Your task to perform on an android device: toggle location history Image 0: 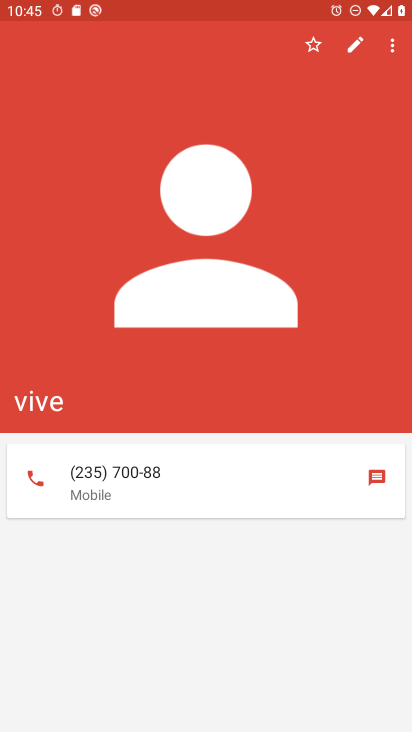
Step 0: press home button
Your task to perform on an android device: toggle location history Image 1: 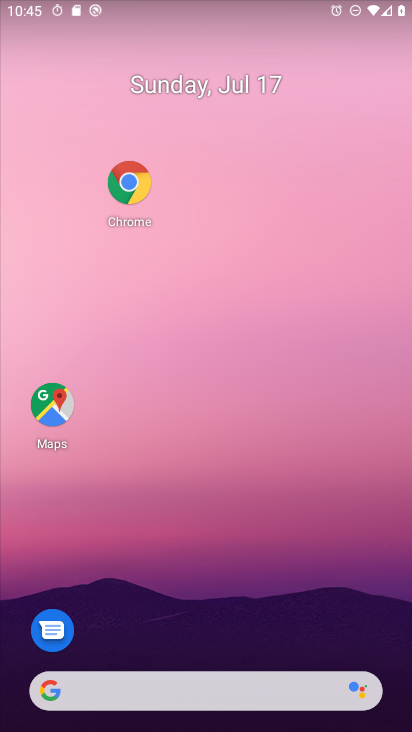
Step 1: drag from (258, 695) to (228, 558)
Your task to perform on an android device: toggle location history Image 2: 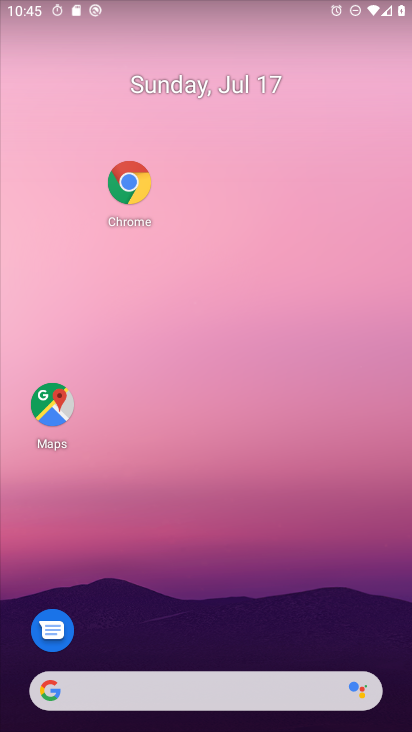
Step 2: drag from (212, 647) to (205, 228)
Your task to perform on an android device: toggle location history Image 3: 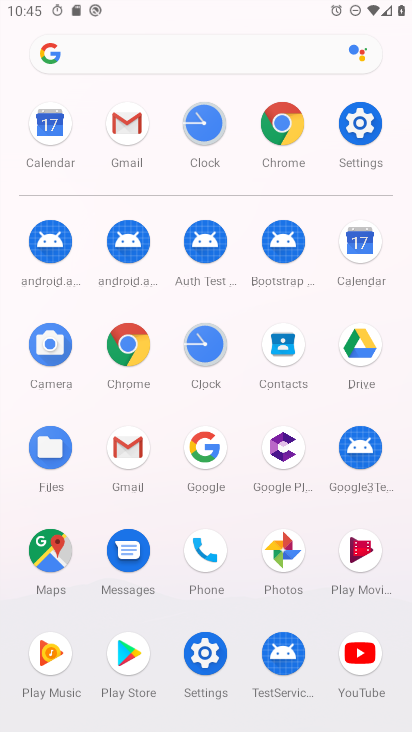
Step 3: click (355, 120)
Your task to perform on an android device: toggle location history Image 4: 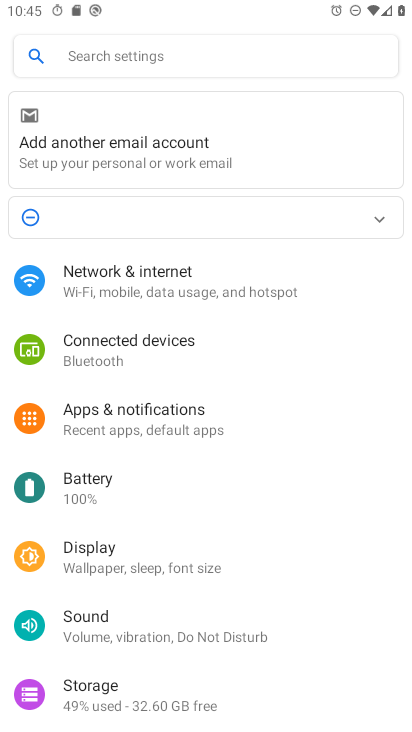
Step 4: drag from (139, 673) to (156, 503)
Your task to perform on an android device: toggle location history Image 5: 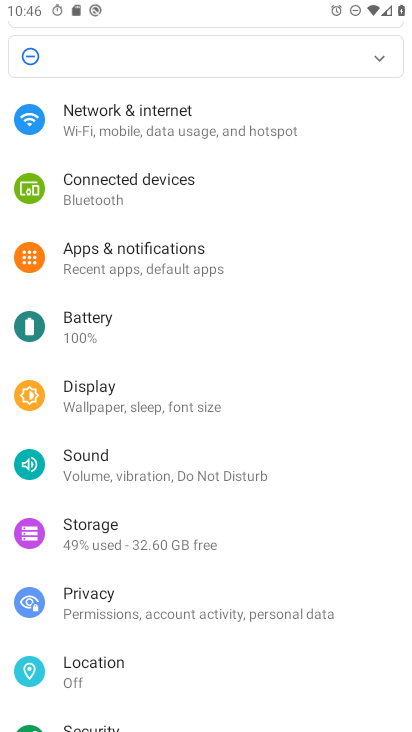
Step 5: drag from (146, 560) to (172, 367)
Your task to perform on an android device: toggle location history Image 6: 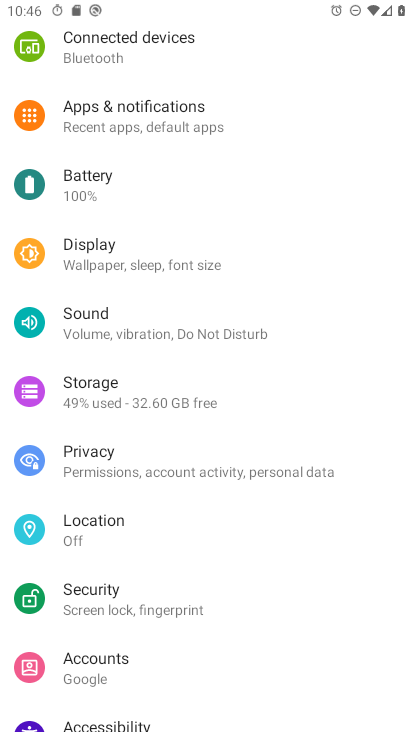
Step 6: click (137, 532)
Your task to perform on an android device: toggle location history Image 7: 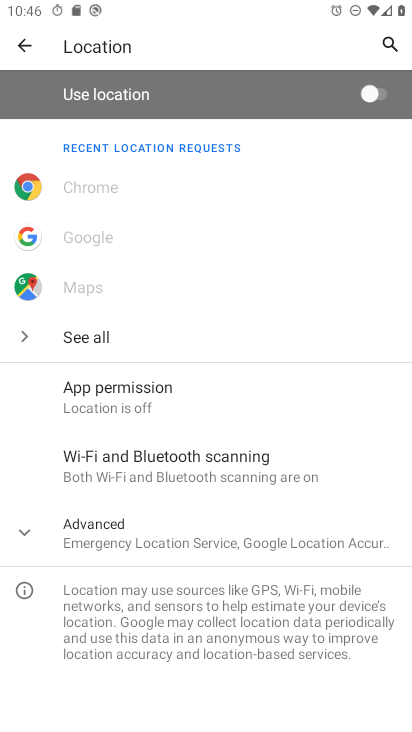
Step 7: click (155, 532)
Your task to perform on an android device: toggle location history Image 8: 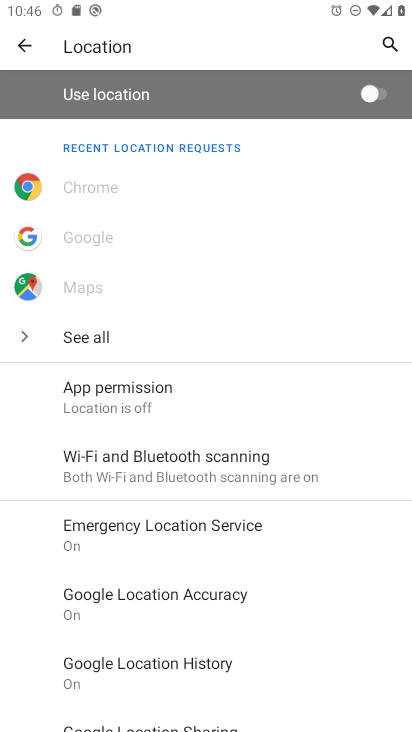
Step 8: click (228, 674)
Your task to perform on an android device: toggle location history Image 9: 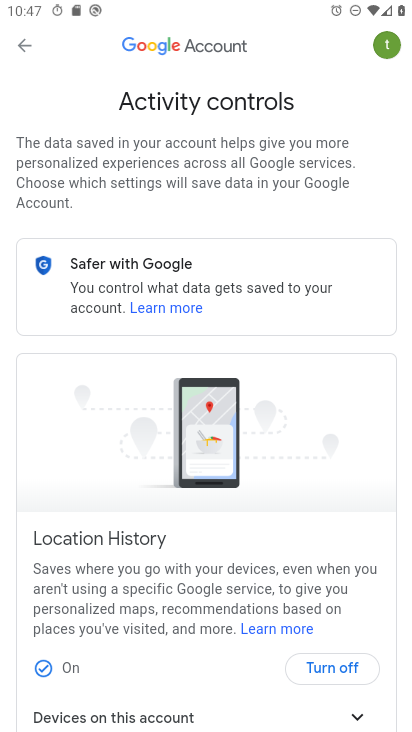
Step 9: click (333, 661)
Your task to perform on an android device: toggle location history Image 10: 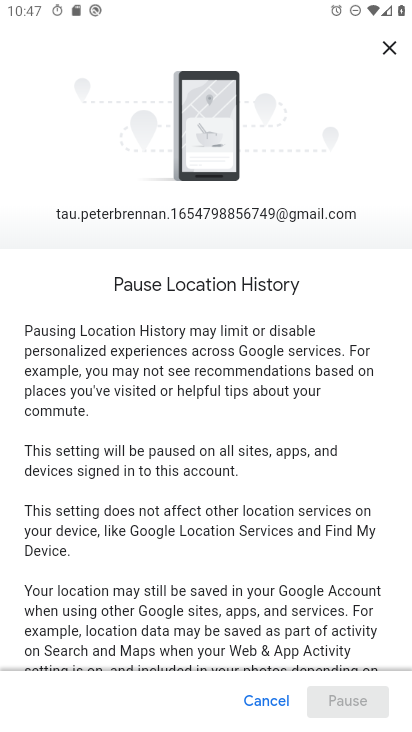
Step 10: task complete